Your task to perform on an android device: see creations saved in the google photos Image 0: 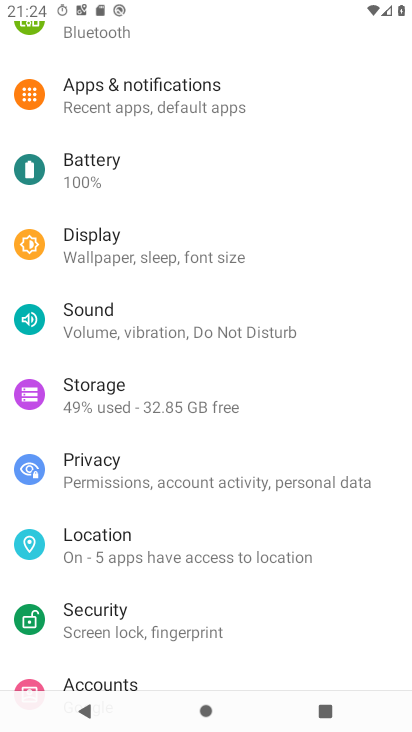
Step 0: press home button
Your task to perform on an android device: see creations saved in the google photos Image 1: 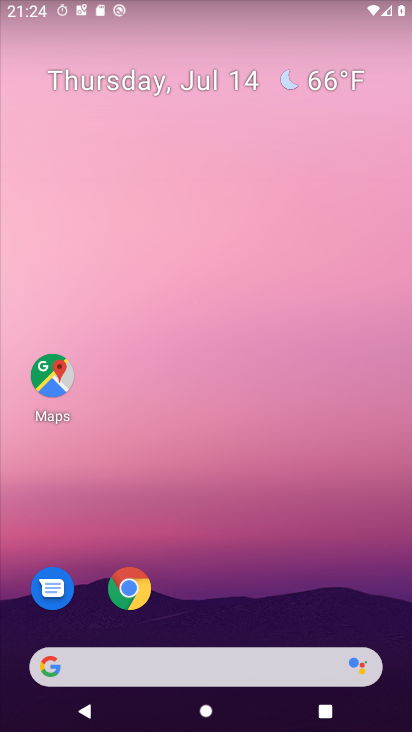
Step 1: drag from (320, 609) to (334, 78)
Your task to perform on an android device: see creations saved in the google photos Image 2: 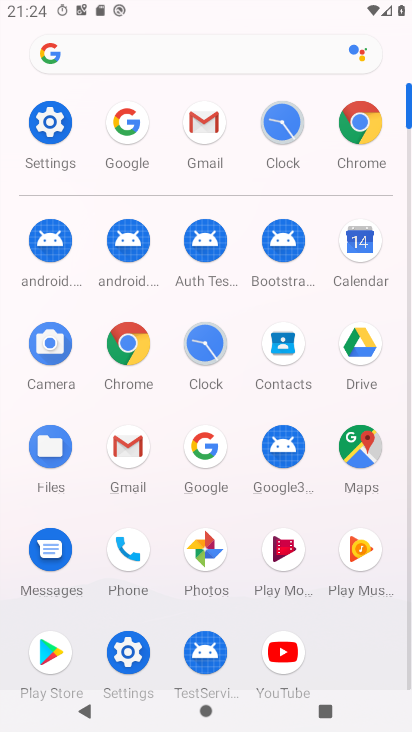
Step 2: click (206, 552)
Your task to perform on an android device: see creations saved in the google photos Image 3: 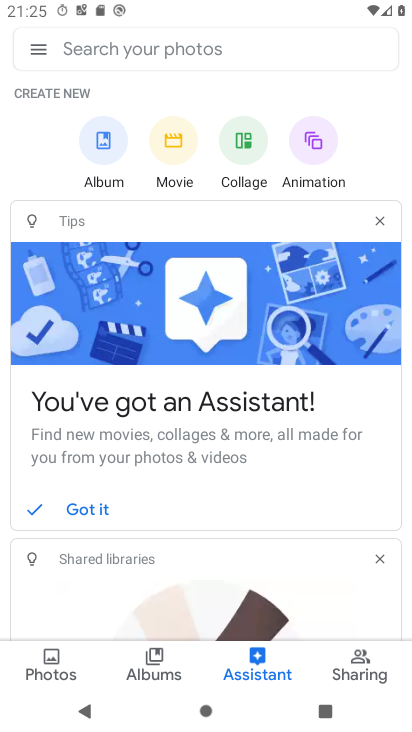
Step 3: click (196, 47)
Your task to perform on an android device: see creations saved in the google photos Image 4: 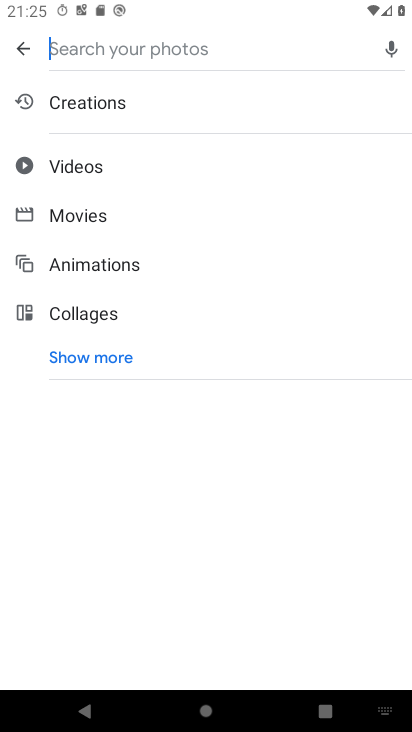
Step 4: click (173, 356)
Your task to perform on an android device: see creations saved in the google photos Image 5: 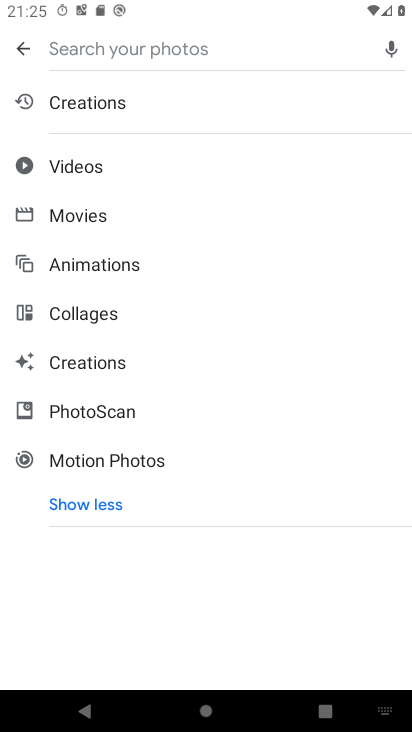
Step 5: click (142, 358)
Your task to perform on an android device: see creations saved in the google photos Image 6: 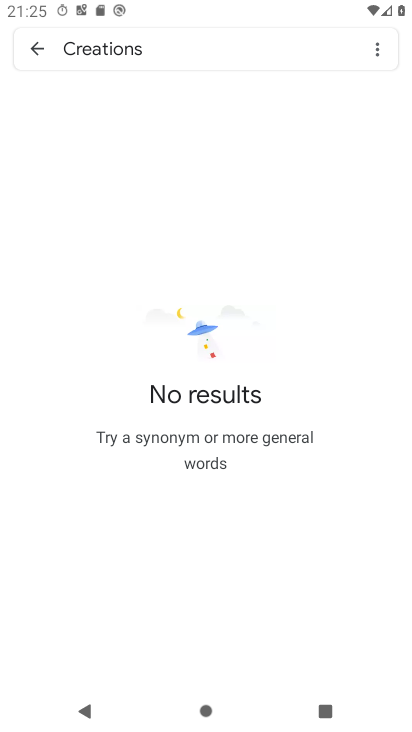
Step 6: task complete